Your task to perform on an android device: create a new album in the google photos Image 0: 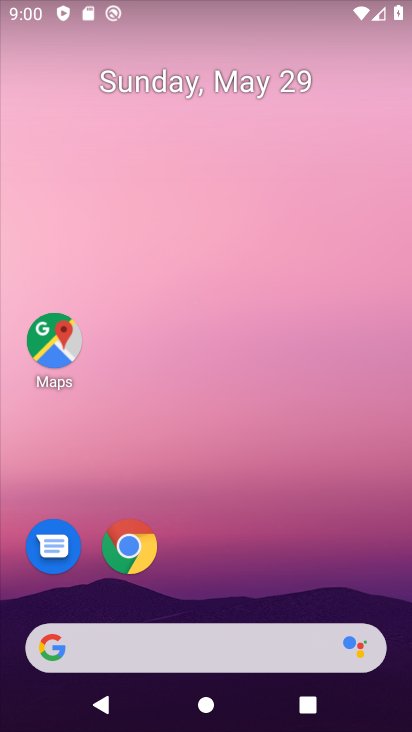
Step 0: drag from (172, 622) to (272, 254)
Your task to perform on an android device: create a new album in the google photos Image 1: 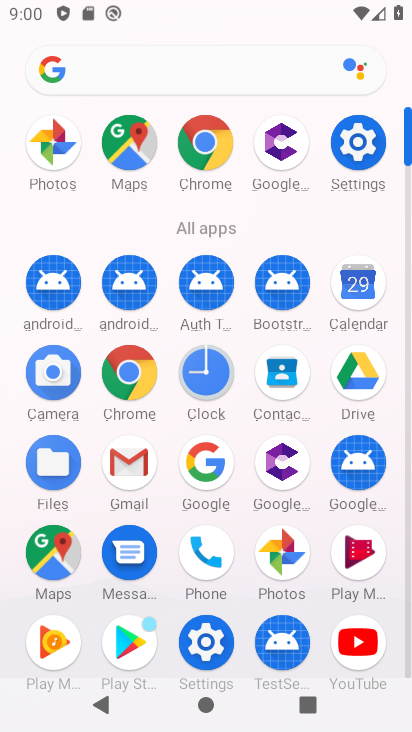
Step 1: click (279, 551)
Your task to perform on an android device: create a new album in the google photos Image 2: 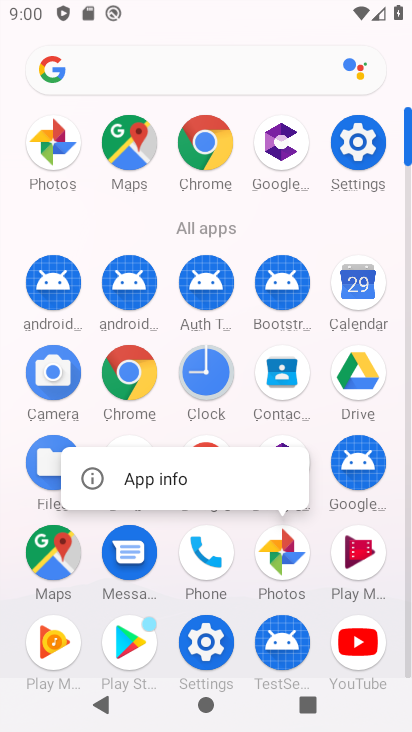
Step 2: click (279, 555)
Your task to perform on an android device: create a new album in the google photos Image 3: 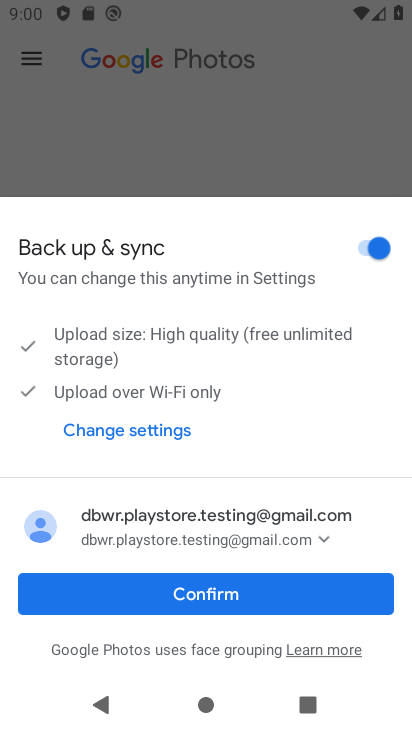
Step 3: click (231, 599)
Your task to perform on an android device: create a new album in the google photos Image 4: 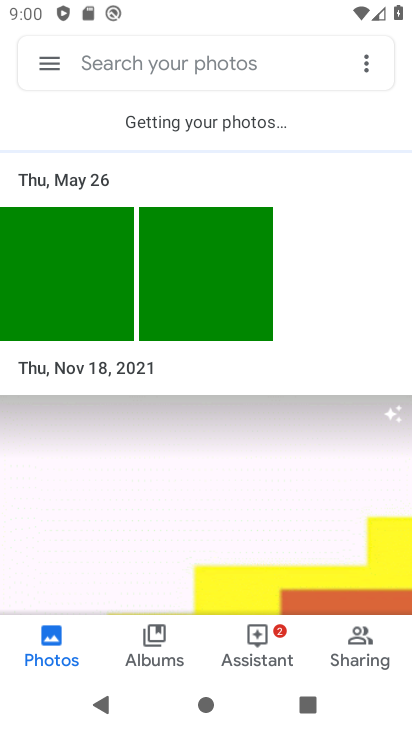
Step 4: click (90, 298)
Your task to perform on an android device: create a new album in the google photos Image 5: 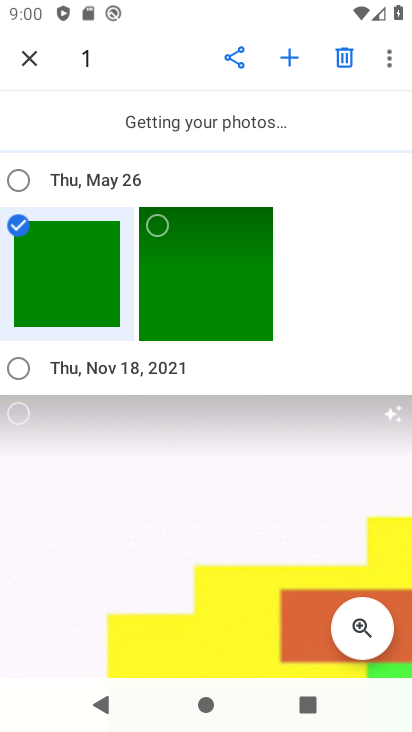
Step 5: click (161, 233)
Your task to perform on an android device: create a new album in the google photos Image 6: 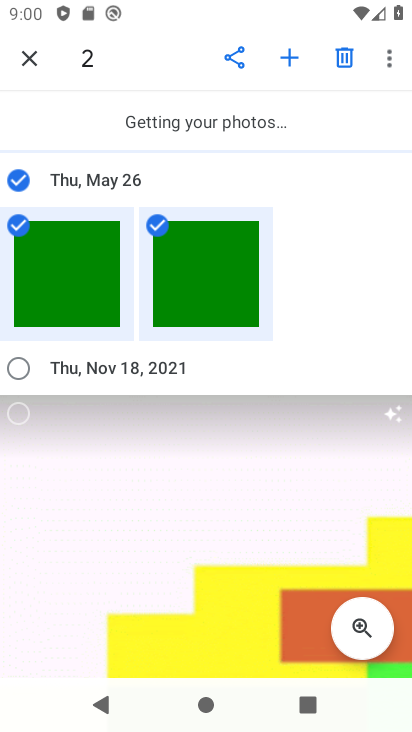
Step 6: click (287, 55)
Your task to perform on an android device: create a new album in the google photos Image 7: 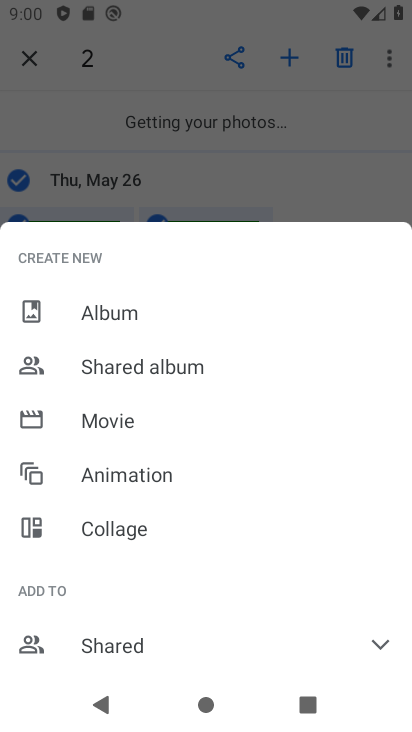
Step 7: click (171, 322)
Your task to perform on an android device: create a new album in the google photos Image 8: 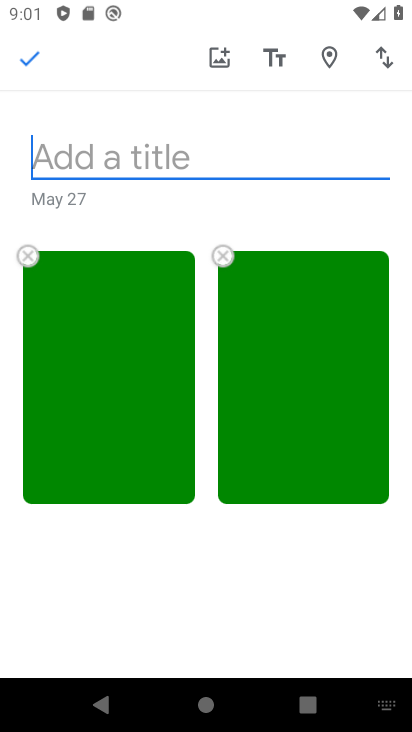
Step 8: type "yolooo"
Your task to perform on an android device: create a new album in the google photos Image 9: 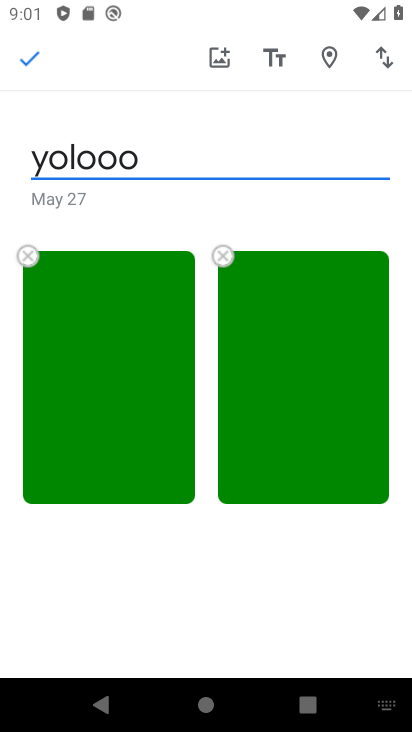
Step 9: click (35, 64)
Your task to perform on an android device: create a new album in the google photos Image 10: 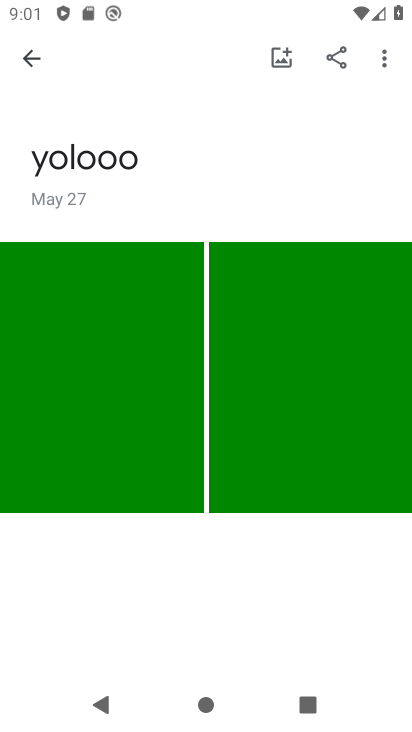
Step 10: task complete